Your task to perform on an android device: check storage Image 0: 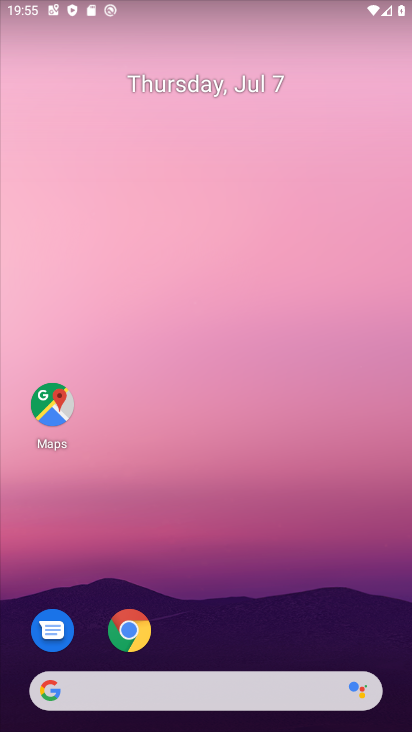
Step 0: drag from (291, 613) to (271, 166)
Your task to perform on an android device: check storage Image 1: 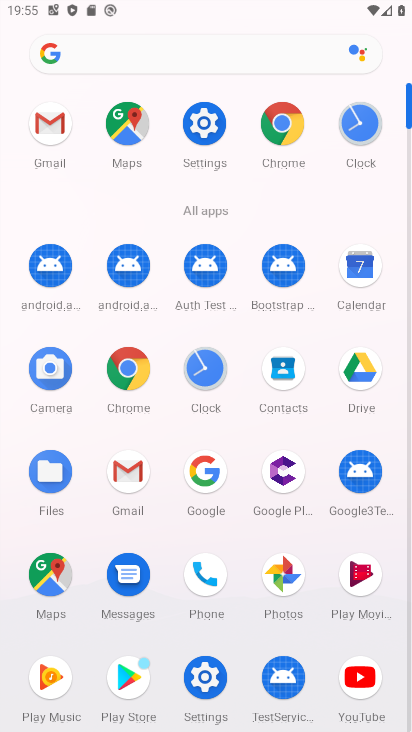
Step 1: click (205, 108)
Your task to perform on an android device: check storage Image 2: 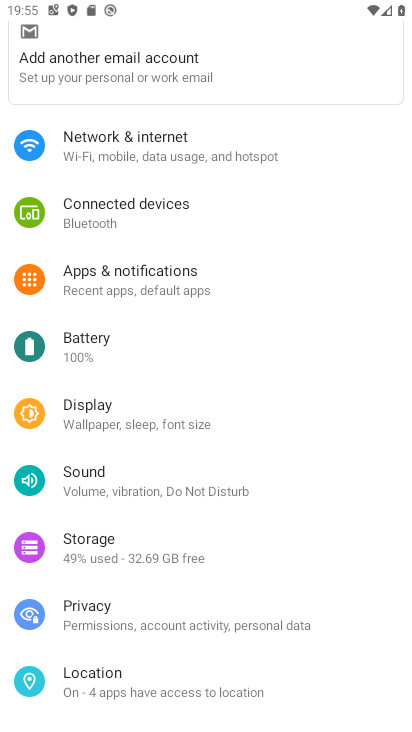
Step 2: click (205, 108)
Your task to perform on an android device: check storage Image 3: 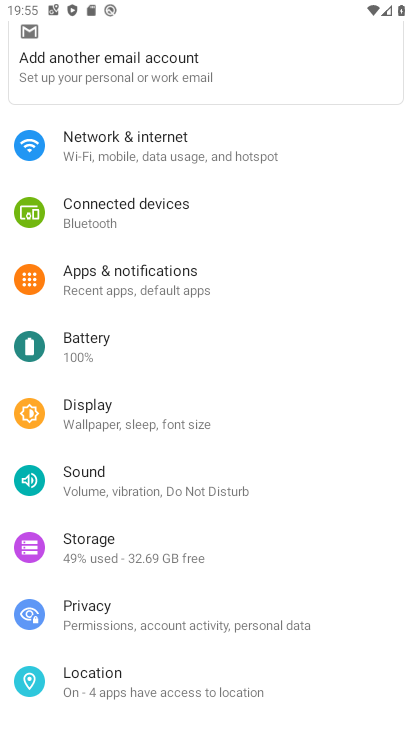
Step 3: click (101, 554)
Your task to perform on an android device: check storage Image 4: 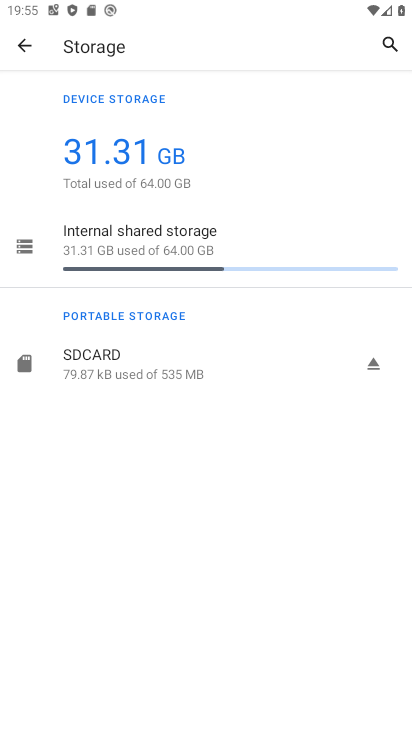
Step 4: task complete